Your task to perform on an android device: Do I have any events tomorrow? Image 0: 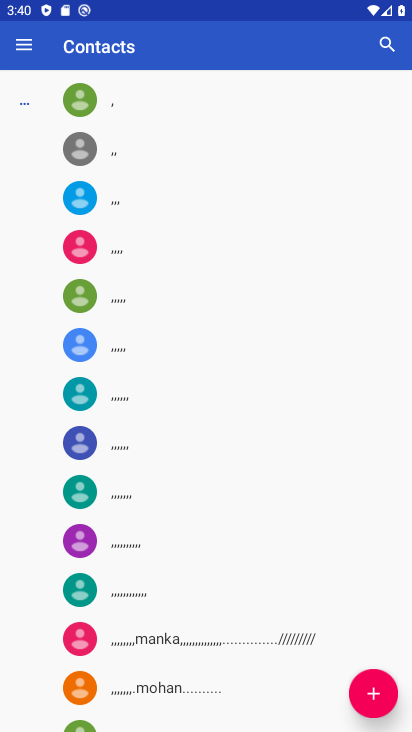
Step 0: press home button
Your task to perform on an android device: Do I have any events tomorrow? Image 1: 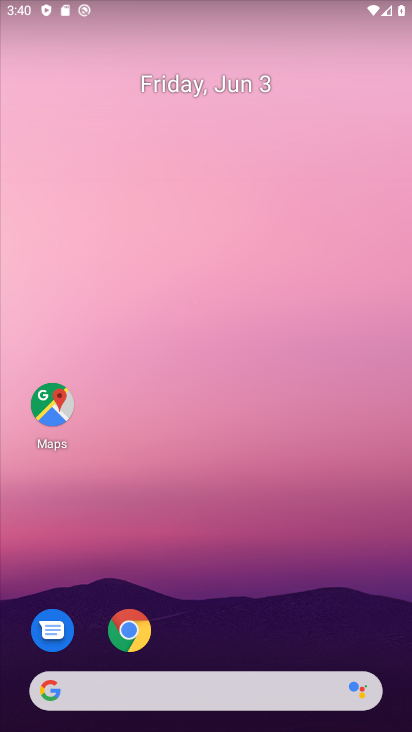
Step 1: drag from (224, 608) to (220, 77)
Your task to perform on an android device: Do I have any events tomorrow? Image 2: 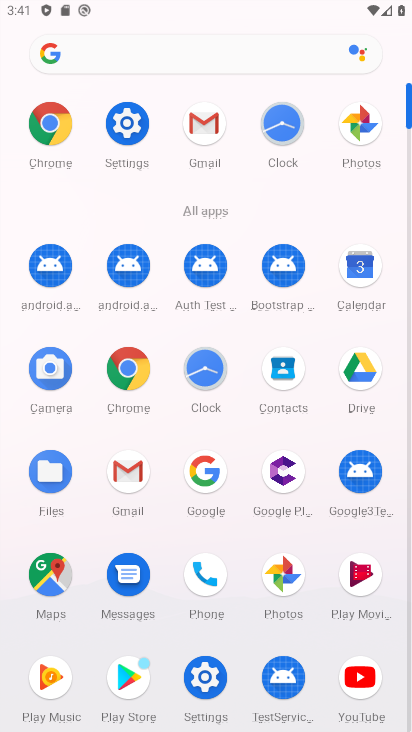
Step 2: click (358, 267)
Your task to perform on an android device: Do I have any events tomorrow? Image 3: 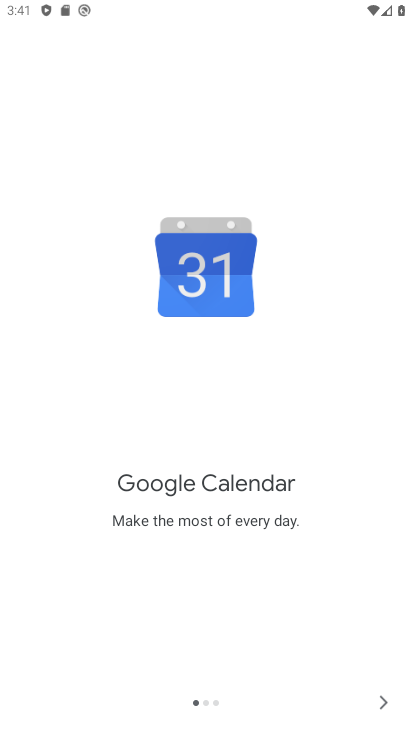
Step 3: click (378, 694)
Your task to perform on an android device: Do I have any events tomorrow? Image 4: 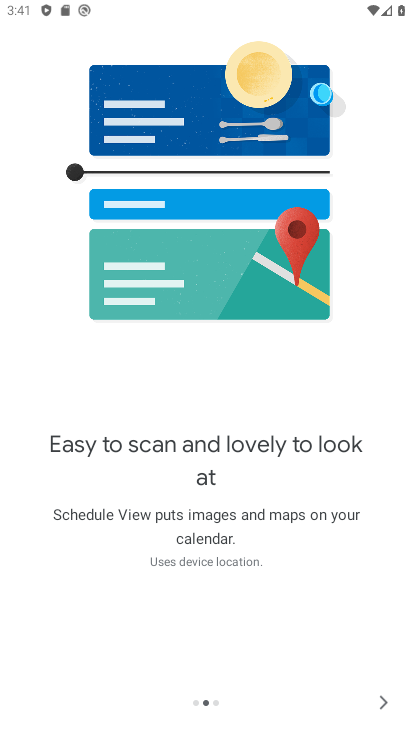
Step 4: click (378, 694)
Your task to perform on an android device: Do I have any events tomorrow? Image 5: 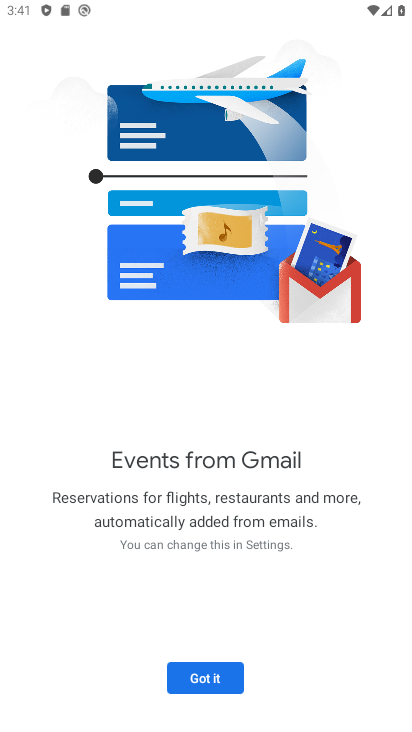
Step 5: click (208, 666)
Your task to perform on an android device: Do I have any events tomorrow? Image 6: 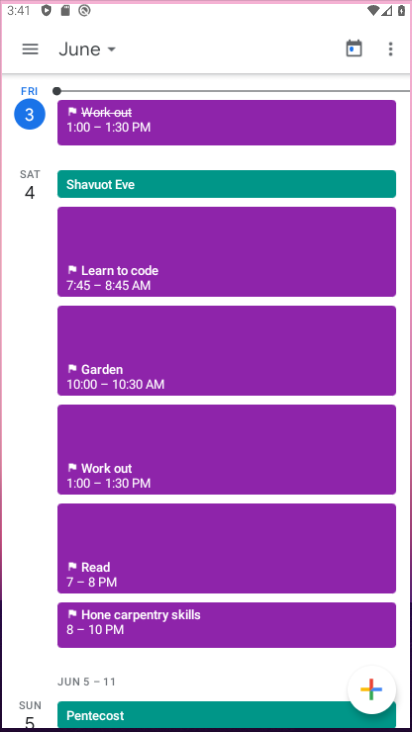
Step 6: click (203, 671)
Your task to perform on an android device: Do I have any events tomorrow? Image 7: 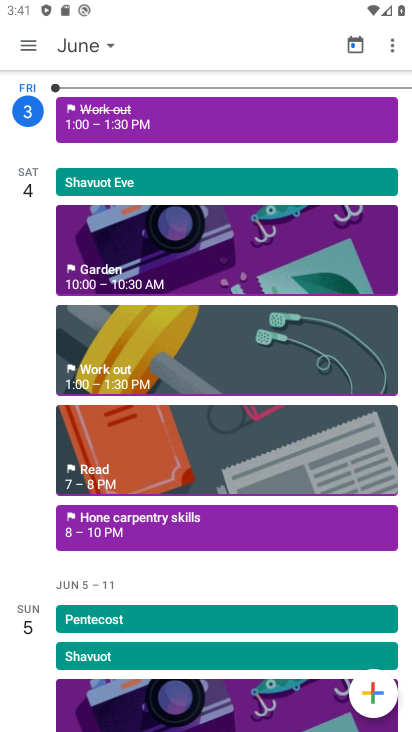
Step 7: task complete